Your task to perform on an android device: change your default location settings in chrome Image 0: 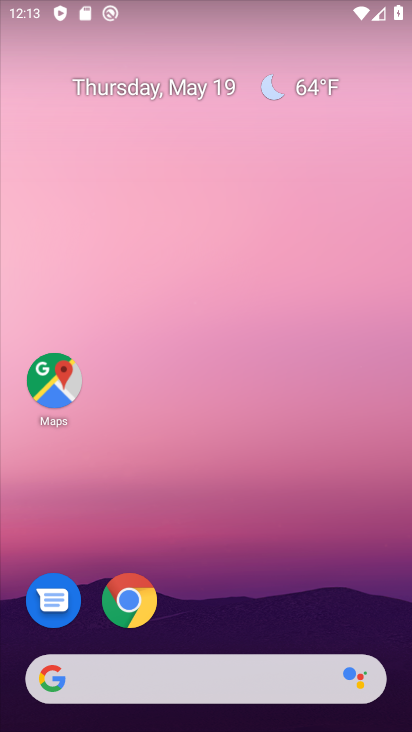
Step 0: click (138, 620)
Your task to perform on an android device: change your default location settings in chrome Image 1: 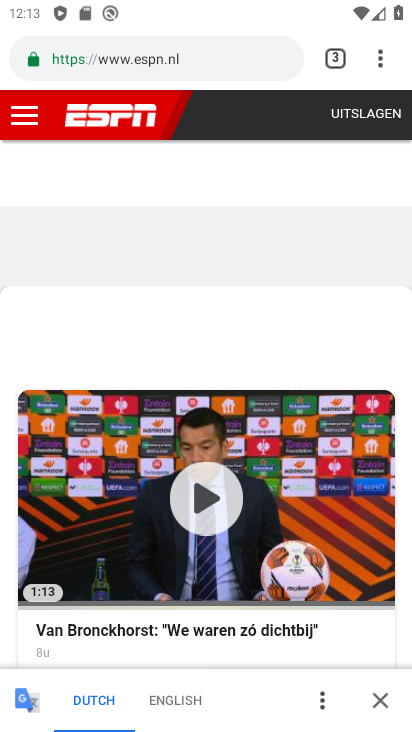
Step 1: click (374, 48)
Your task to perform on an android device: change your default location settings in chrome Image 2: 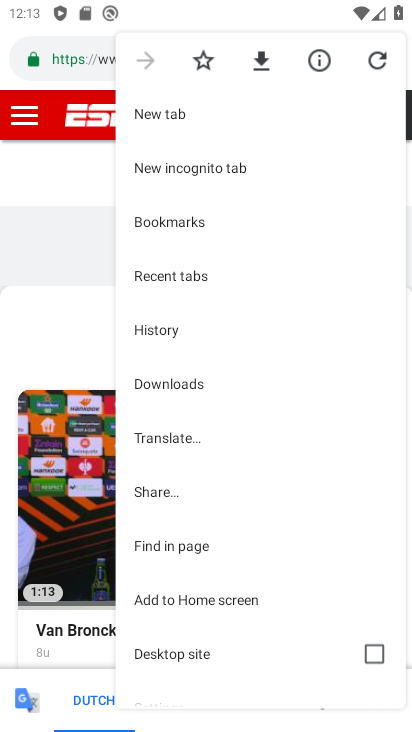
Step 2: drag from (185, 639) to (122, 205)
Your task to perform on an android device: change your default location settings in chrome Image 3: 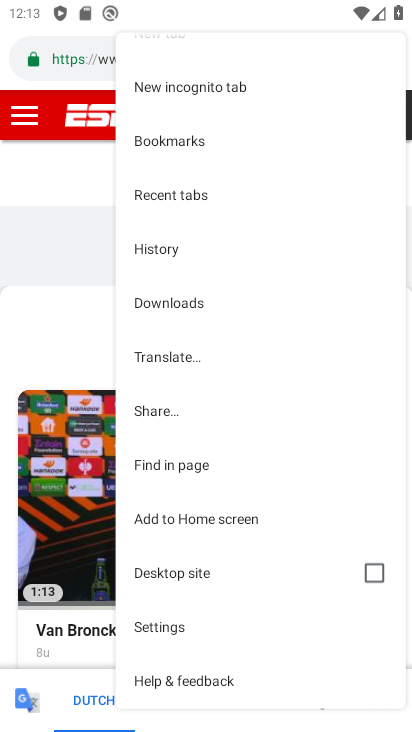
Step 3: click (172, 619)
Your task to perform on an android device: change your default location settings in chrome Image 4: 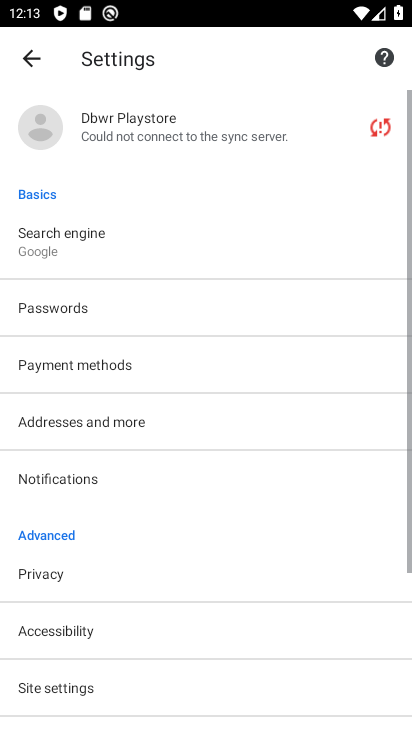
Step 4: drag from (226, 593) to (165, 569)
Your task to perform on an android device: change your default location settings in chrome Image 5: 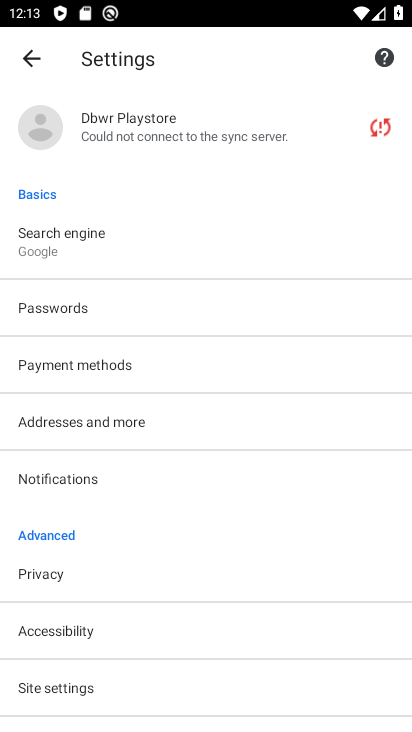
Step 5: click (93, 685)
Your task to perform on an android device: change your default location settings in chrome Image 6: 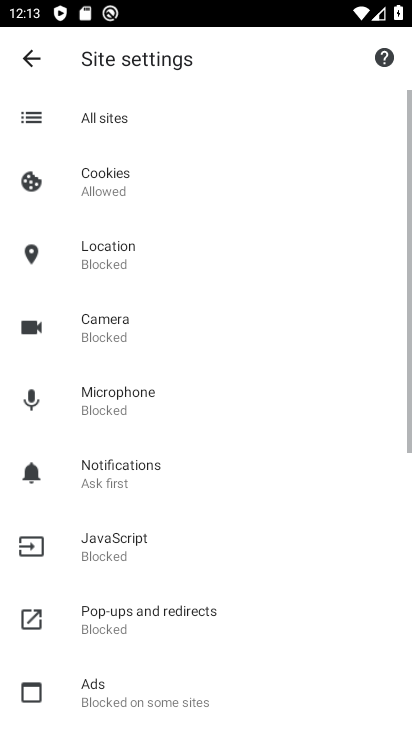
Step 6: click (77, 259)
Your task to perform on an android device: change your default location settings in chrome Image 7: 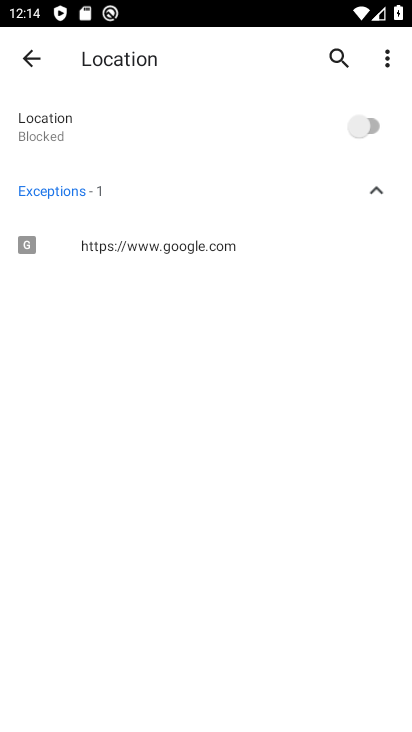
Step 7: click (365, 137)
Your task to perform on an android device: change your default location settings in chrome Image 8: 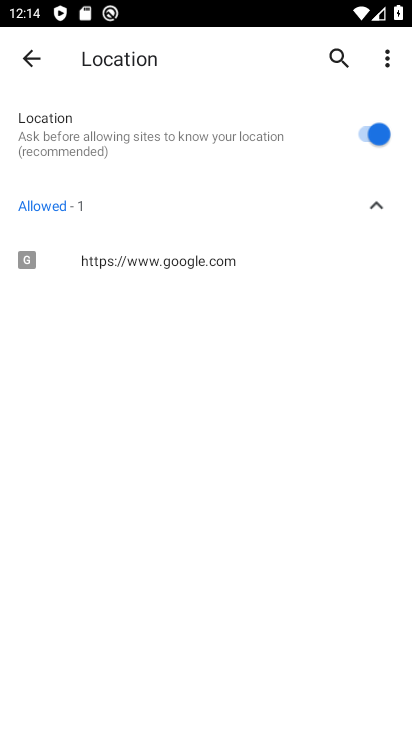
Step 8: task complete